Your task to perform on an android device: turn off location history Image 0: 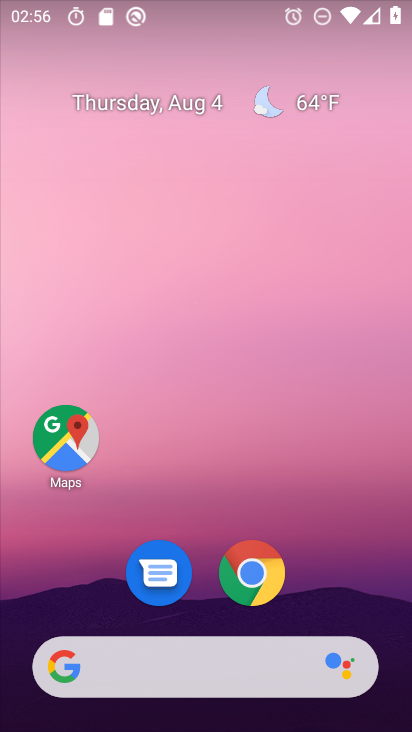
Step 0: drag from (379, 566) to (334, 81)
Your task to perform on an android device: turn off location history Image 1: 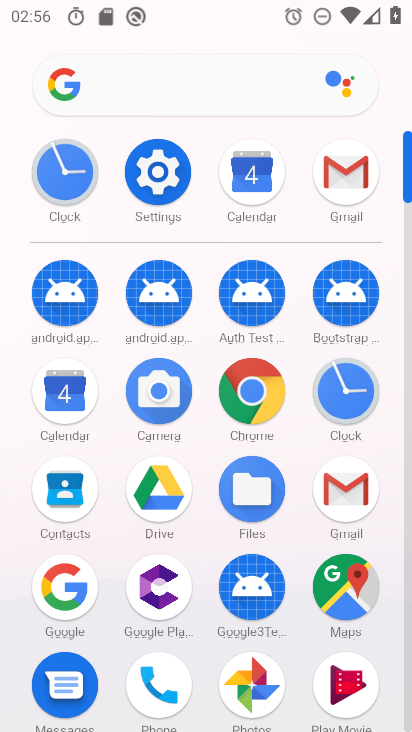
Step 1: click (160, 156)
Your task to perform on an android device: turn off location history Image 2: 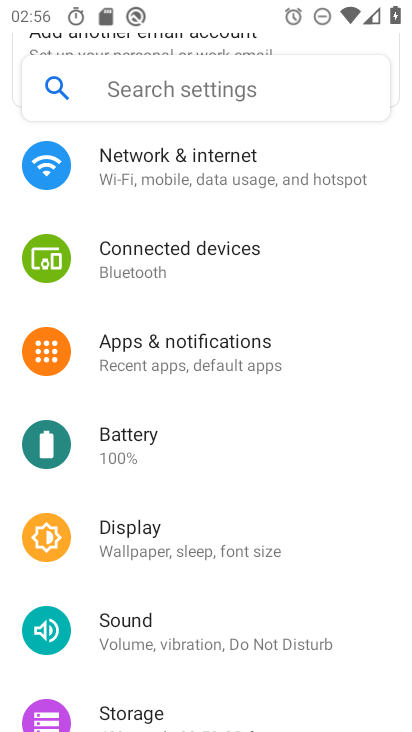
Step 2: drag from (256, 624) to (294, 163)
Your task to perform on an android device: turn off location history Image 3: 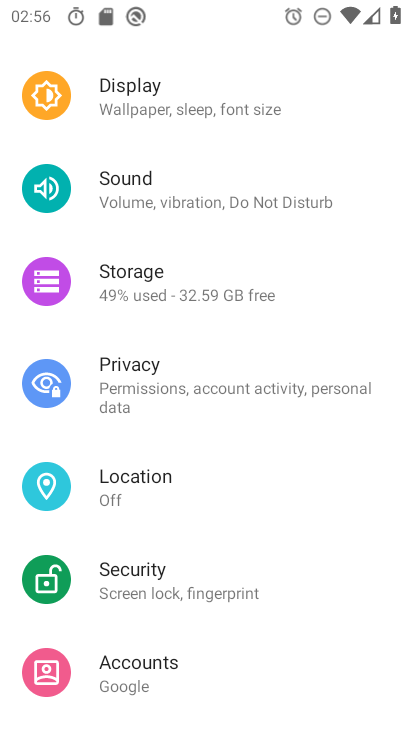
Step 3: click (155, 488)
Your task to perform on an android device: turn off location history Image 4: 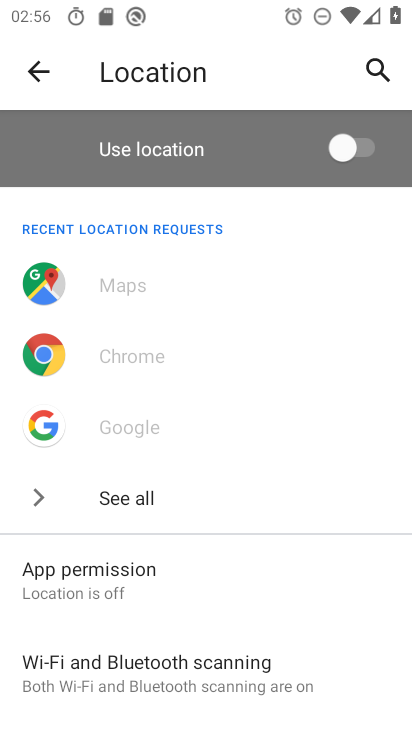
Step 4: drag from (219, 621) to (276, 252)
Your task to perform on an android device: turn off location history Image 5: 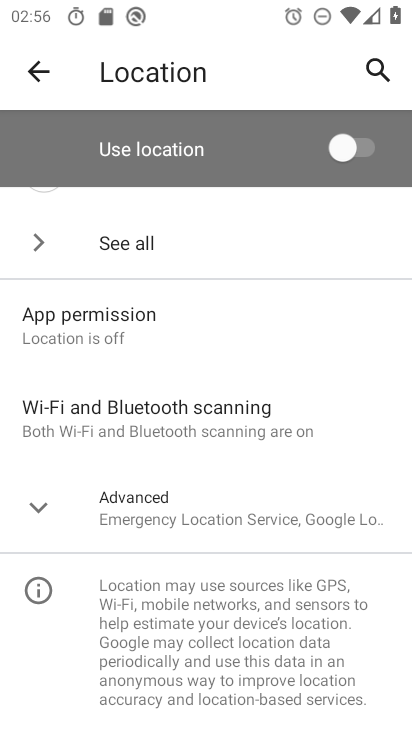
Step 5: click (178, 524)
Your task to perform on an android device: turn off location history Image 6: 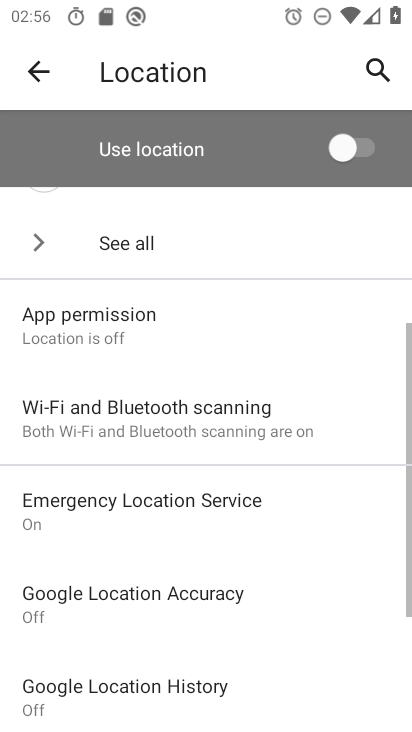
Step 6: drag from (304, 640) to (322, 303)
Your task to perform on an android device: turn off location history Image 7: 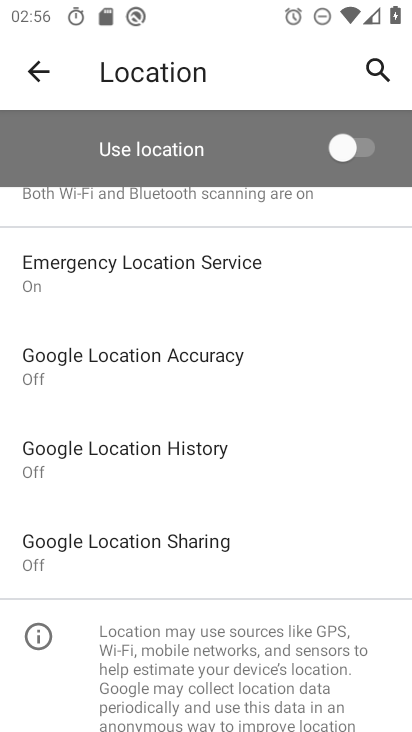
Step 7: click (190, 446)
Your task to perform on an android device: turn off location history Image 8: 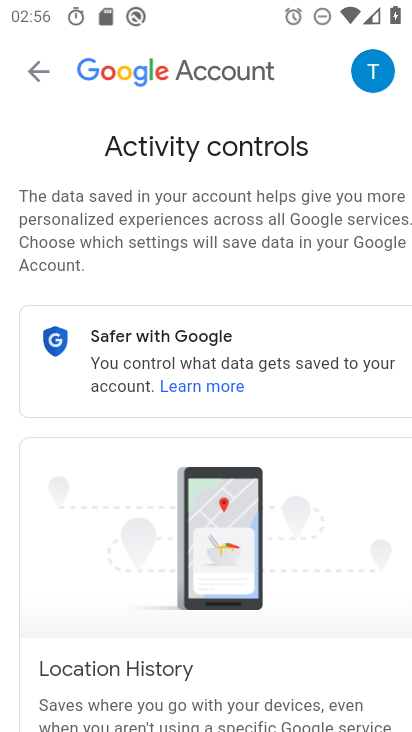
Step 8: drag from (233, 631) to (284, 219)
Your task to perform on an android device: turn off location history Image 9: 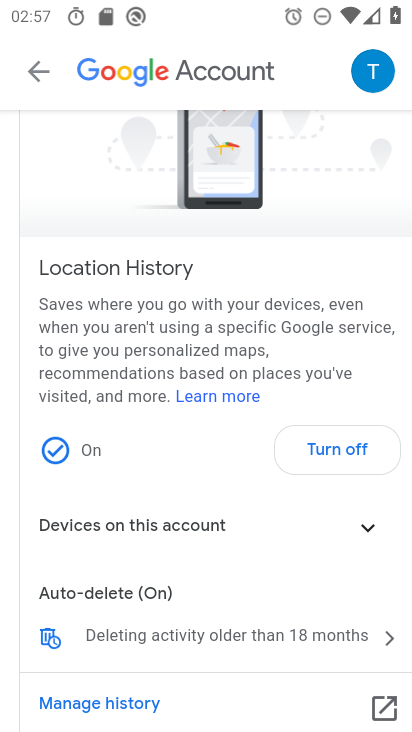
Step 9: click (319, 455)
Your task to perform on an android device: turn off location history Image 10: 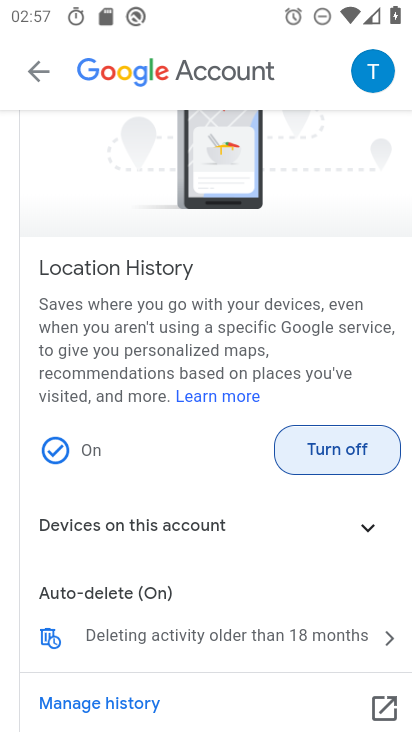
Step 10: click (319, 455)
Your task to perform on an android device: turn off location history Image 11: 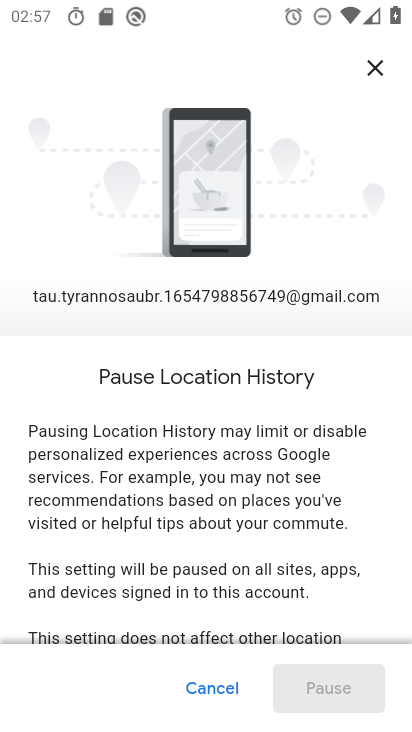
Step 11: drag from (263, 281) to (281, 138)
Your task to perform on an android device: turn off location history Image 12: 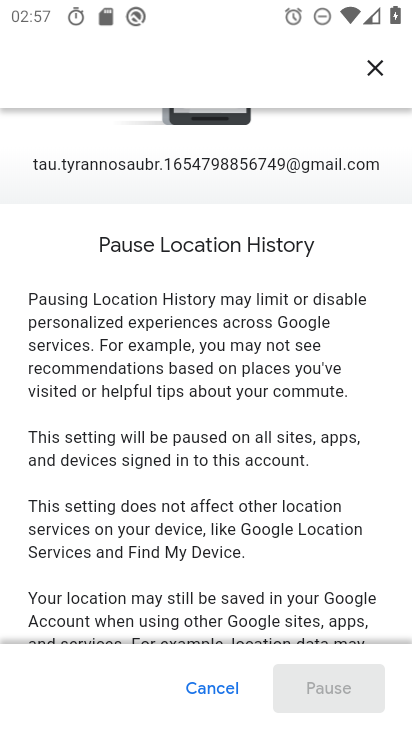
Step 12: drag from (246, 568) to (254, 242)
Your task to perform on an android device: turn off location history Image 13: 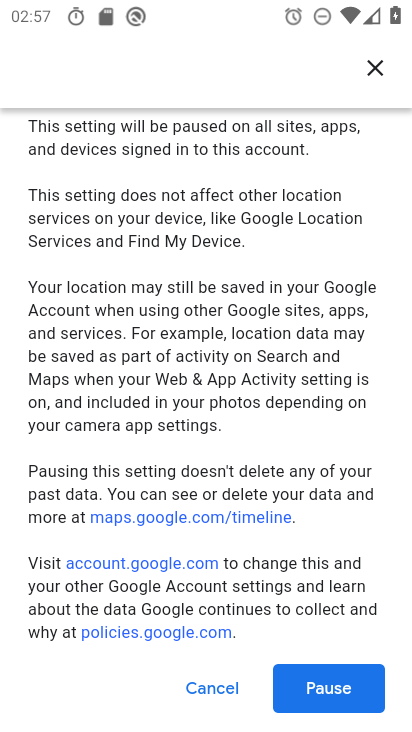
Step 13: click (336, 679)
Your task to perform on an android device: turn off location history Image 14: 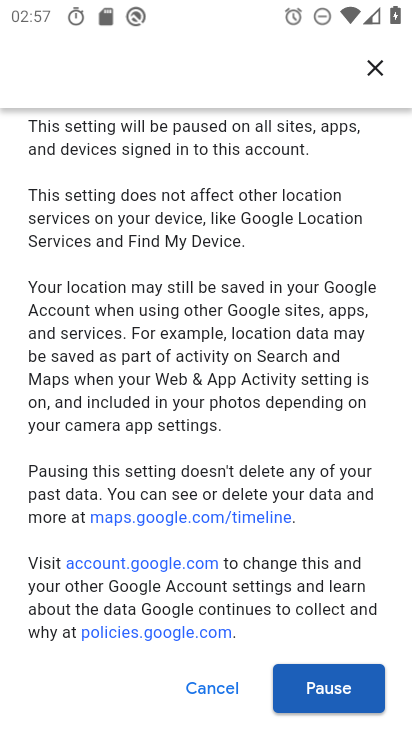
Step 14: click (343, 715)
Your task to perform on an android device: turn off location history Image 15: 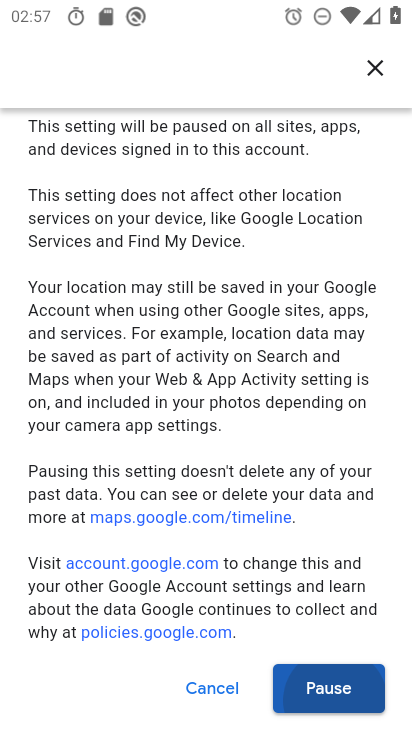
Step 15: click (340, 700)
Your task to perform on an android device: turn off location history Image 16: 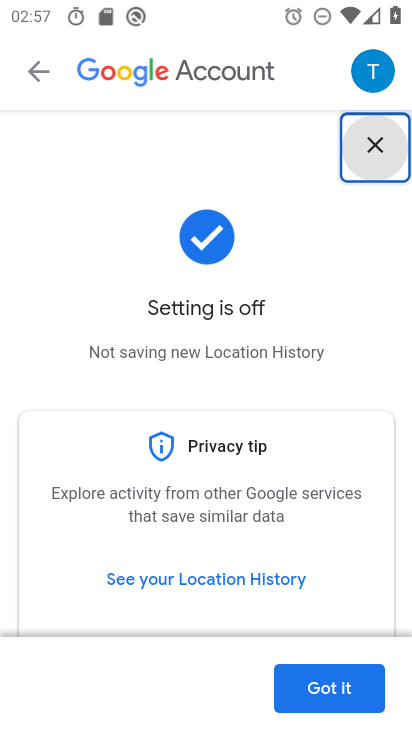
Step 16: task complete